Your task to perform on an android device: find snoozed emails in the gmail app Image 0: 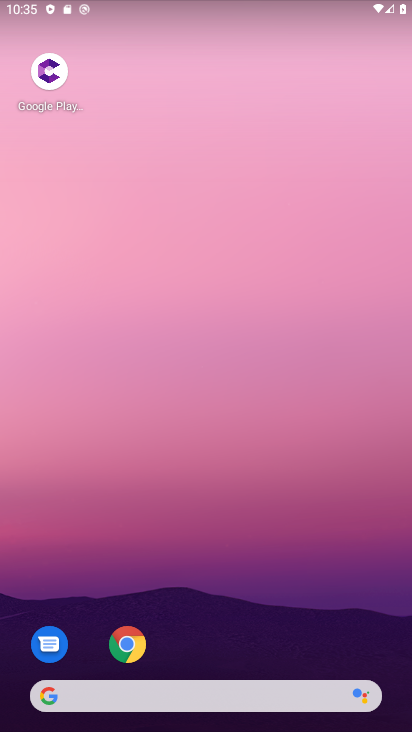
Step 0: drag from (231, 662) to (338, 182)
Your task to perform on an android device: find snoozed emails in the gmail app Image 1: 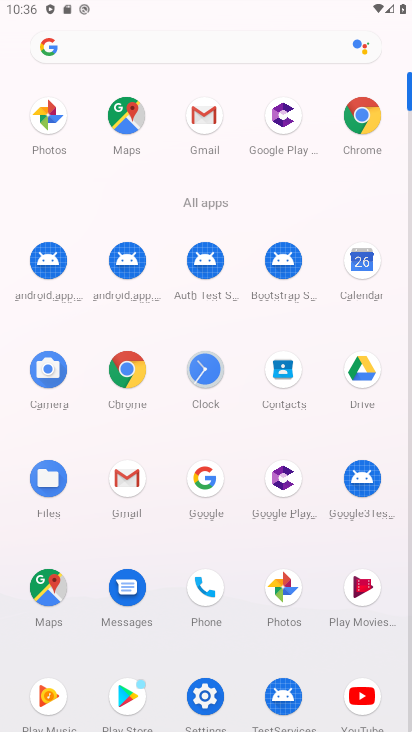
Step 1: click (143, 480)
Your task to perform on an android device: find snoozed emails in the gmail app Image 2: 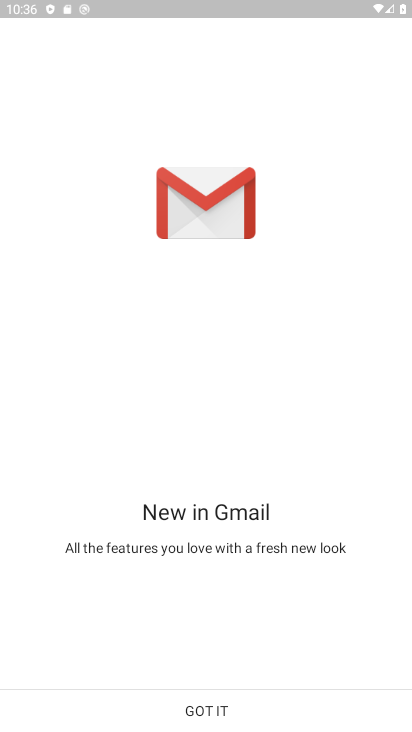
Step 2: click (210, 705)
Your task to perform on an android device: find snoozed emails in the gmail app Image 3: 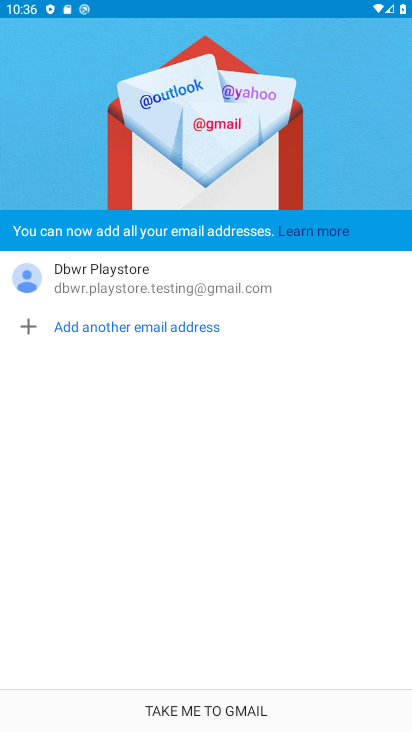
Step 3: click (230, 708)
Your task to perform on an android device: find snoozed emails in the gmail app Image 4: 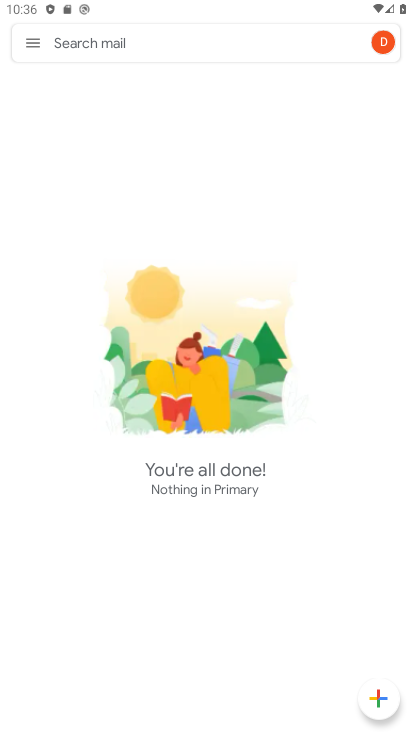
Step 4: click (35, 35)
Your task to perform on an android device: find snoozed emails in the gmail app Image 5: 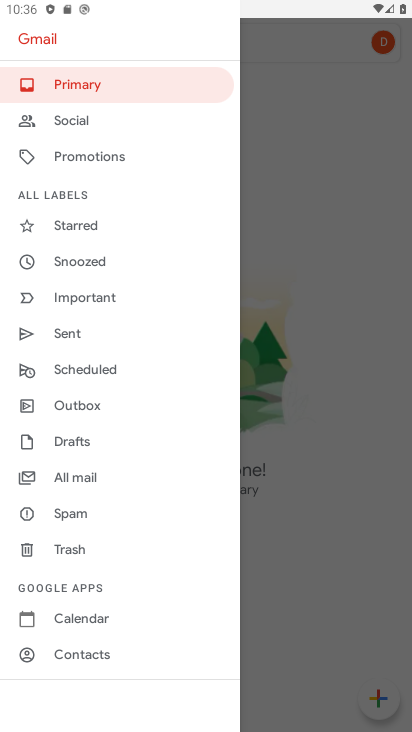
Step 5: click (110, 260)
Your task to perform on an android device: find snoozed emails in the gmail app Image 6: 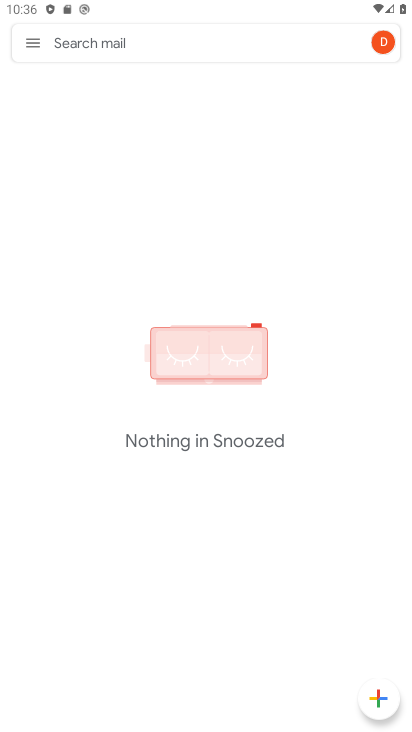
Step 6: task complete